Your task to perform on an android device: Open settings Image 0: 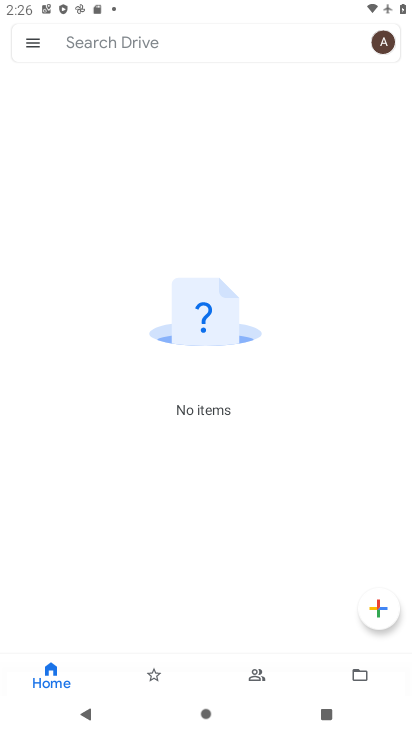
Step 0: press home button
Your task to perform on an android device: Open settings Image 1: 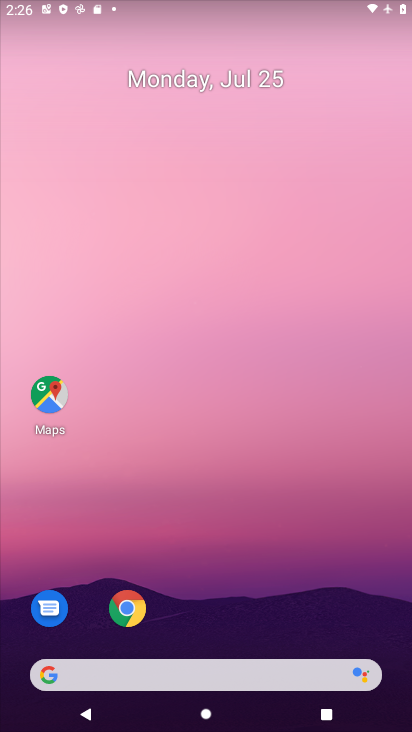
Step 1: drag from (221, 435) to (267, 222)
Your task to perform on an android device: Open settings Image 2: 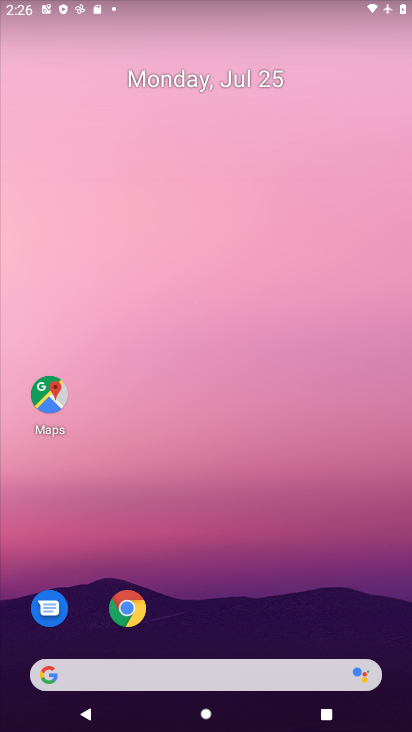
Step 2: drag from (259, 647) to (279, 114)
Your task to perform on an android device: Open settings Image 3: 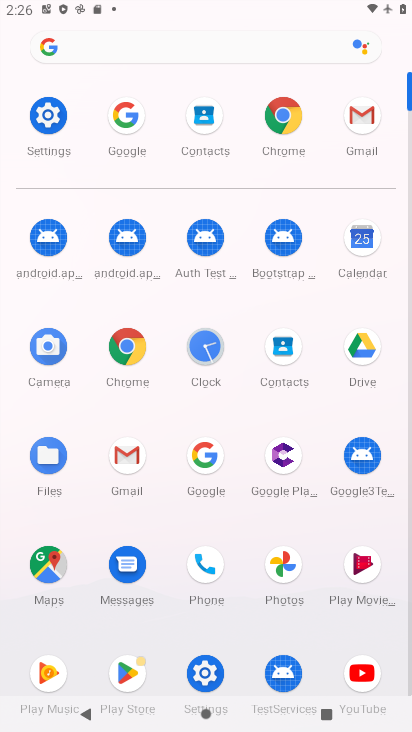
Step 3: click (54, 121)
Your task to perform on an android device: Open settings Image 4: 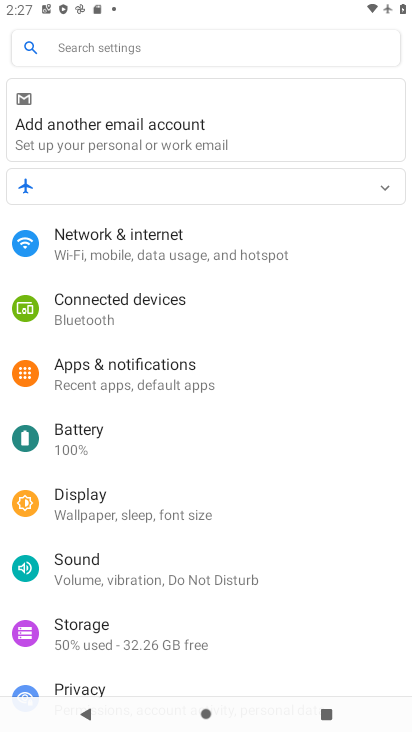
Step 4: task complete